Your task to perform on an android device: uninstall "Google Docs" Image 0: 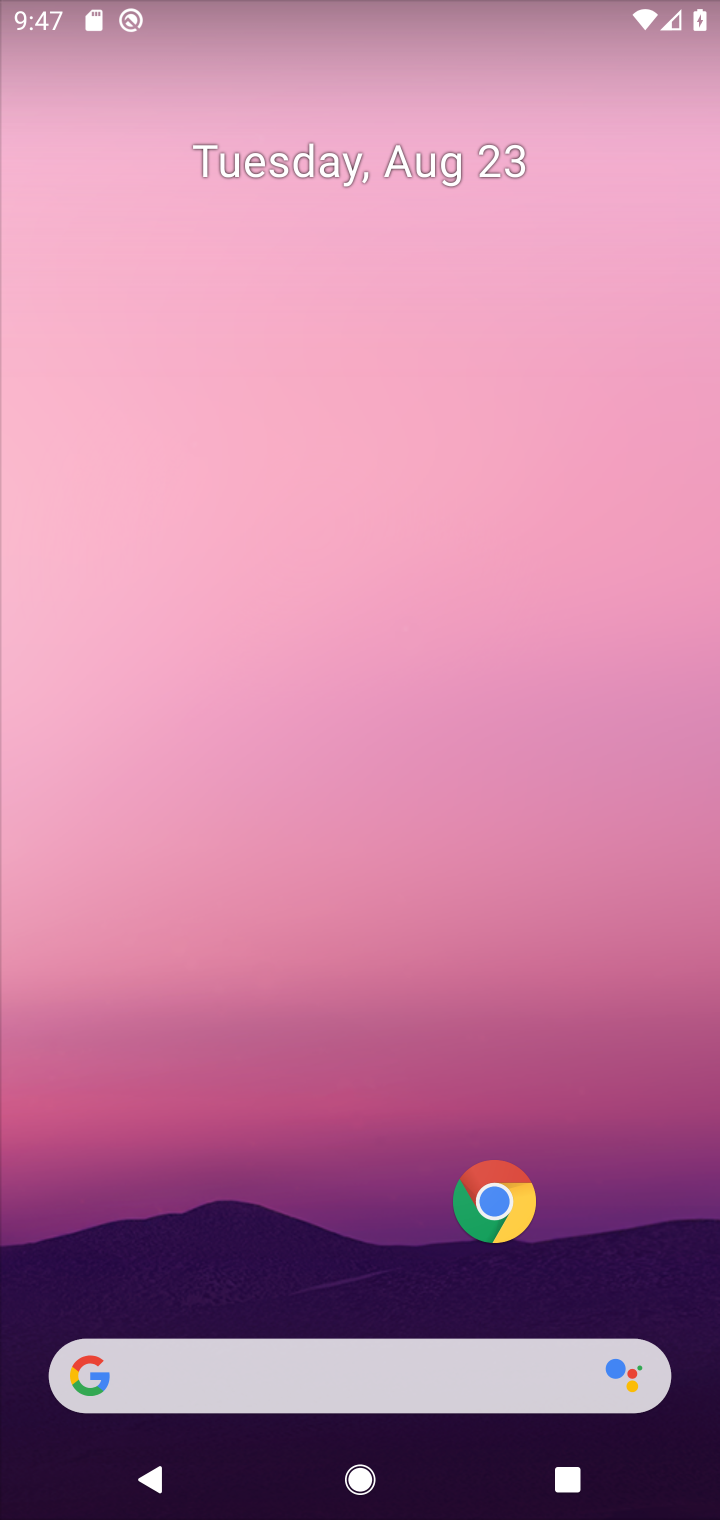
Step 0: drag from (407, 1187) to (407, 758)
Your task to perform on an android device: uninstall "Google Docs" Image 1: 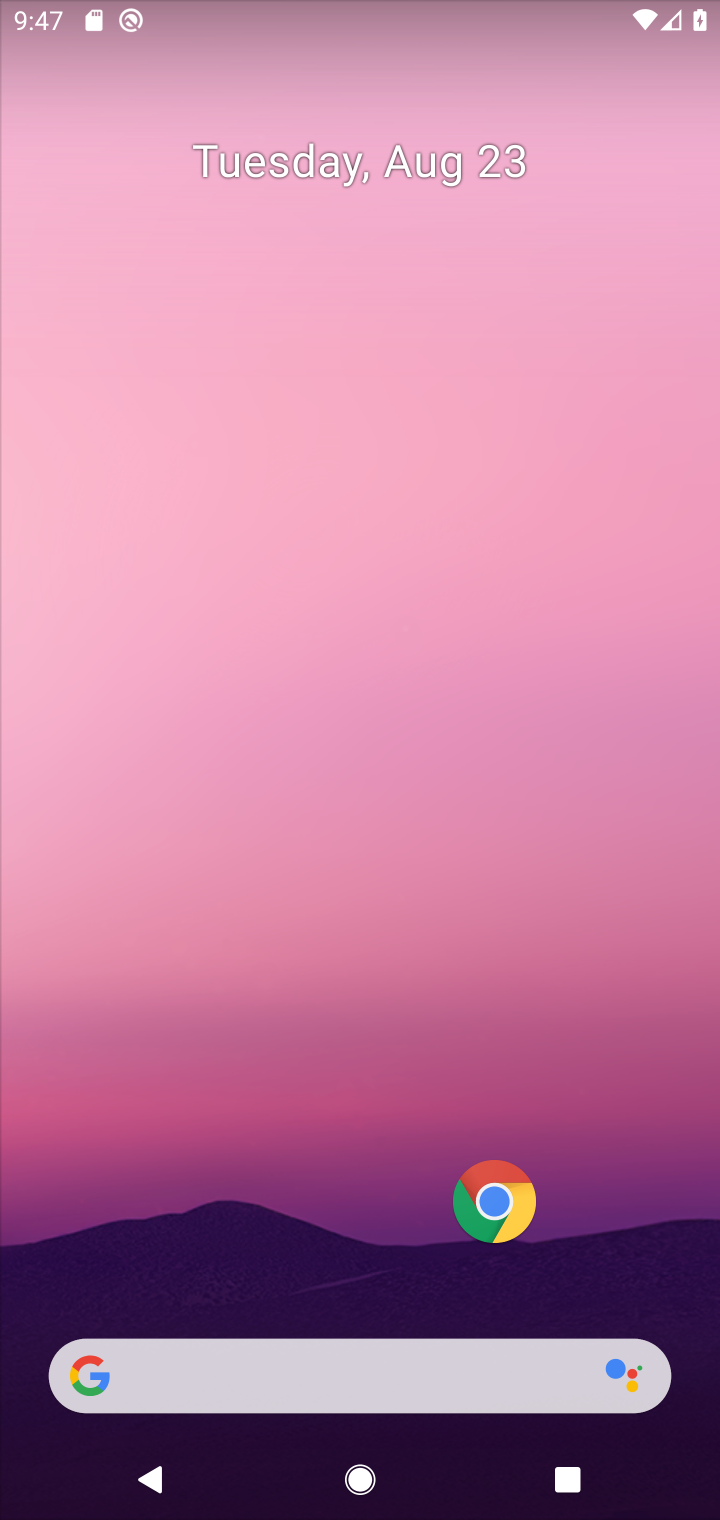
Step 1: drag from (252, 1304) to (270, 665)
Your task to perform on an android device: uninstall "Google Docs" Image 2: 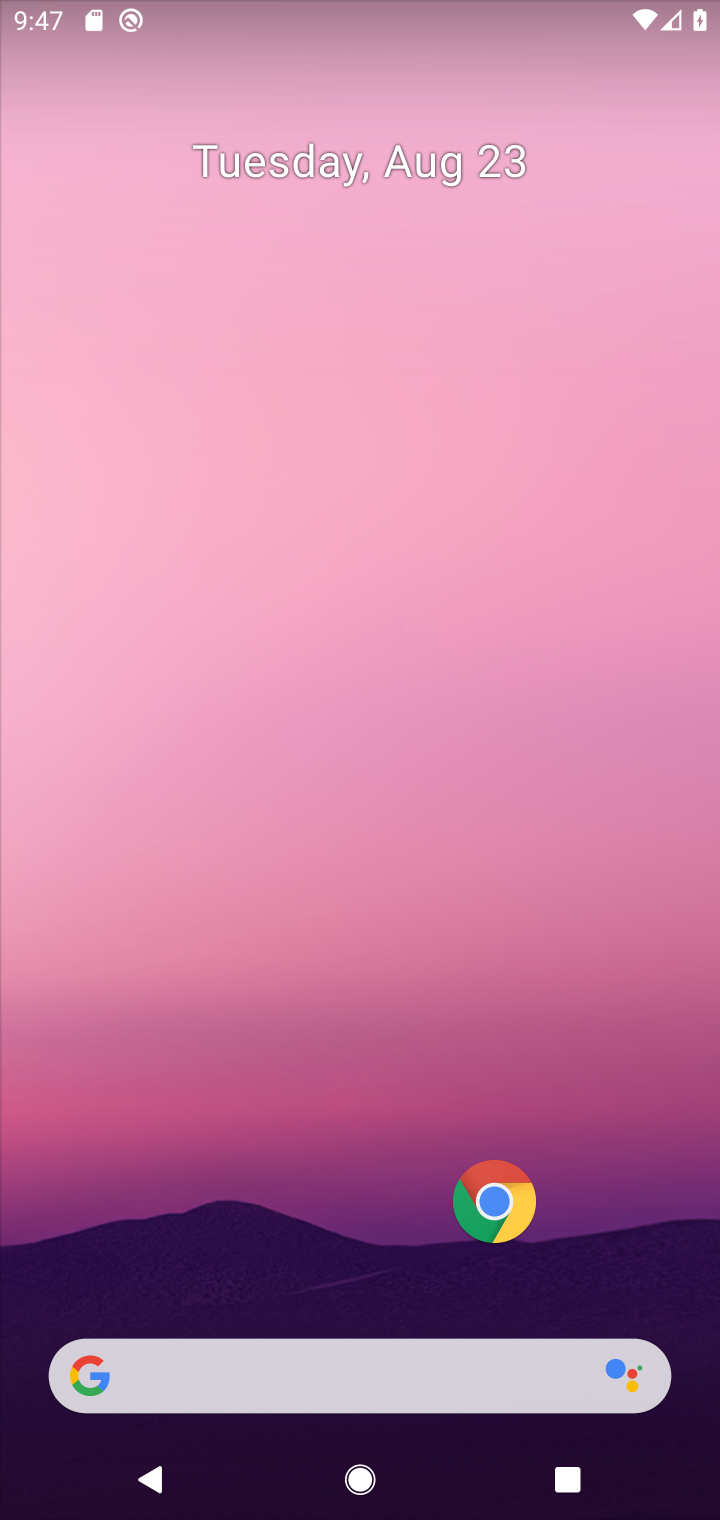
Step 2: drag from (301, 1267) to (332, 636)
Your task to perform on an android device: uninstall "Google Docs" Image 3: 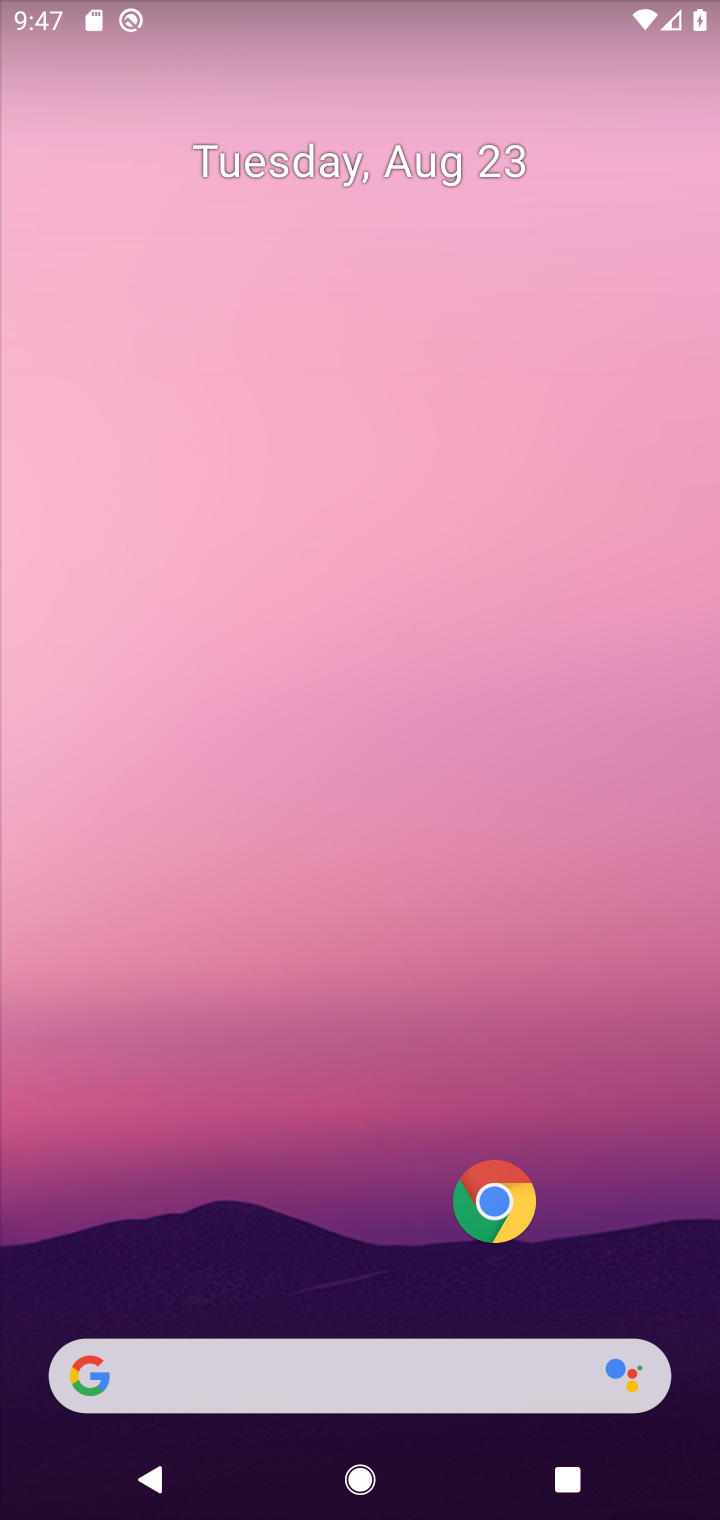
Step 3: drag from (355, 1275) to (349, 66)
Your task to perform on an android device: uninstall "Google Docs" Image 4: 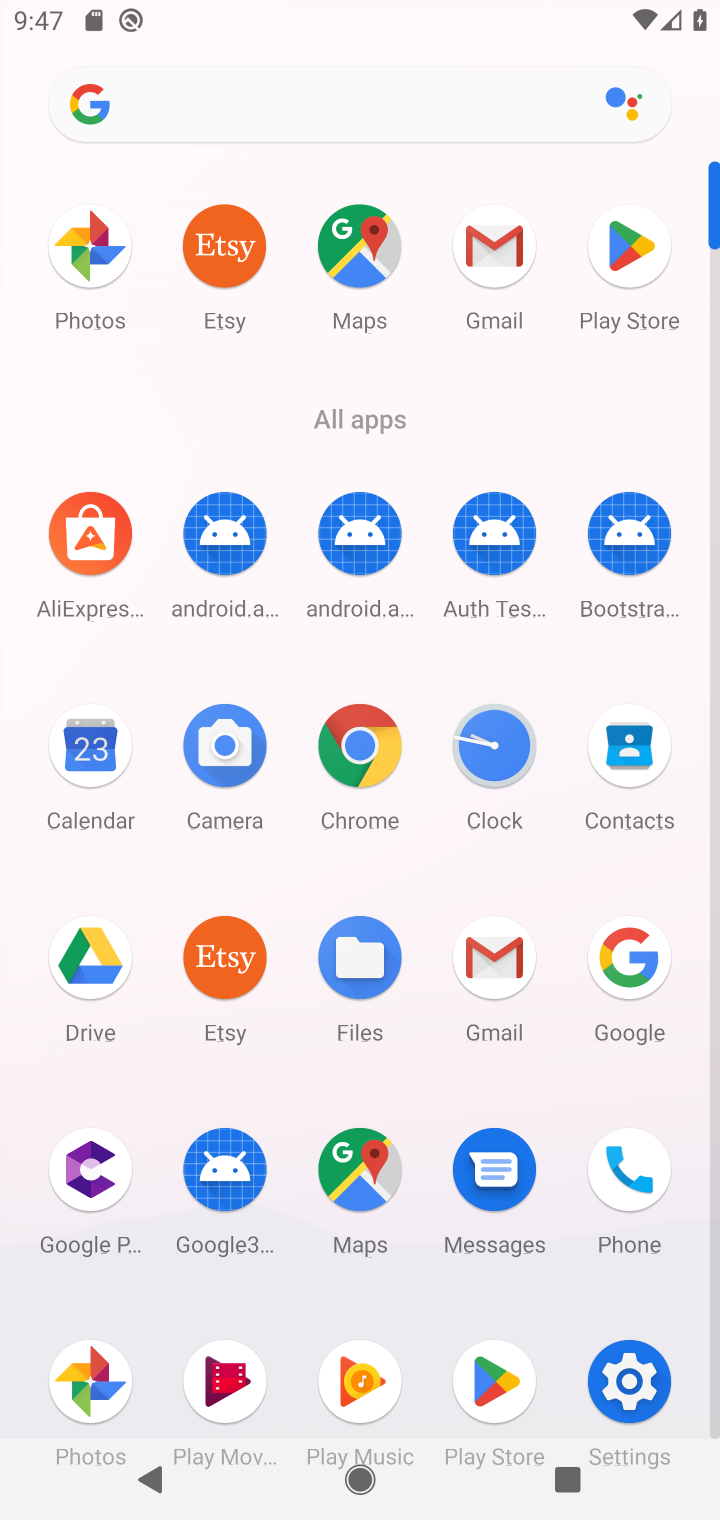
Step 4: click (625, 236)
Your task to perform on an android device: uninstall "Google Docs" Image 5: 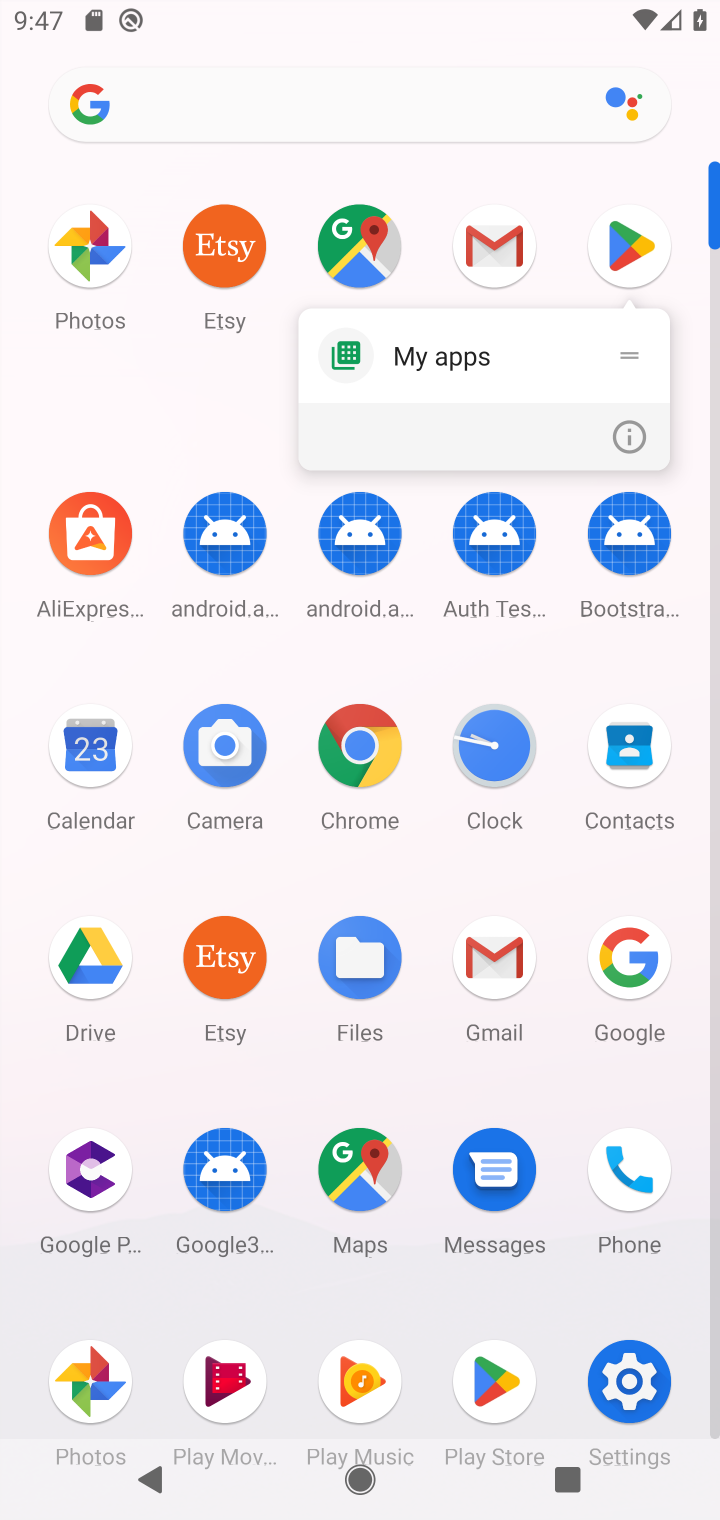
Step 5: click (625, 236)
Your task to perform on an android device: uninstall "Google Docs" Image 6: 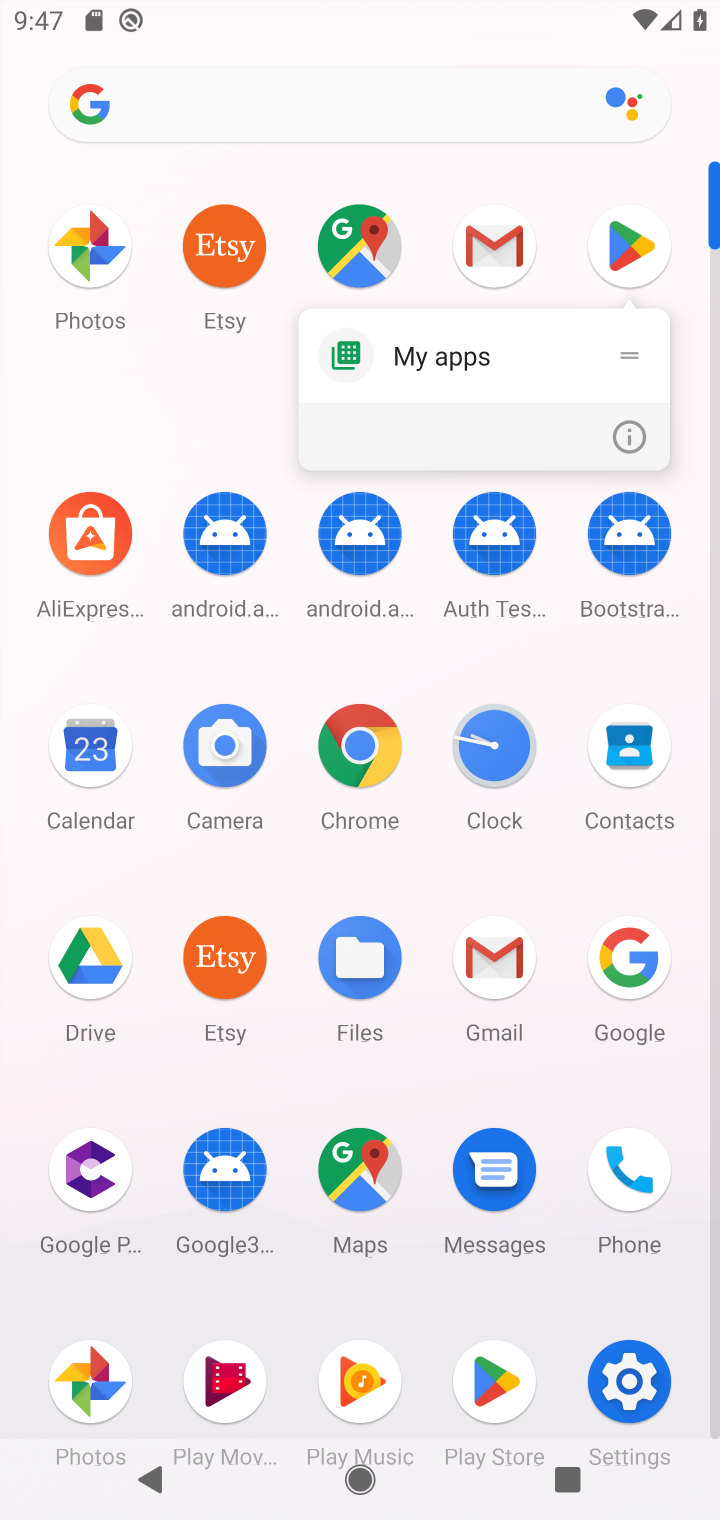
Step 6: click (501, 1393)
Your task to perform on an android device: uninstall "Google Docs" Image 7: 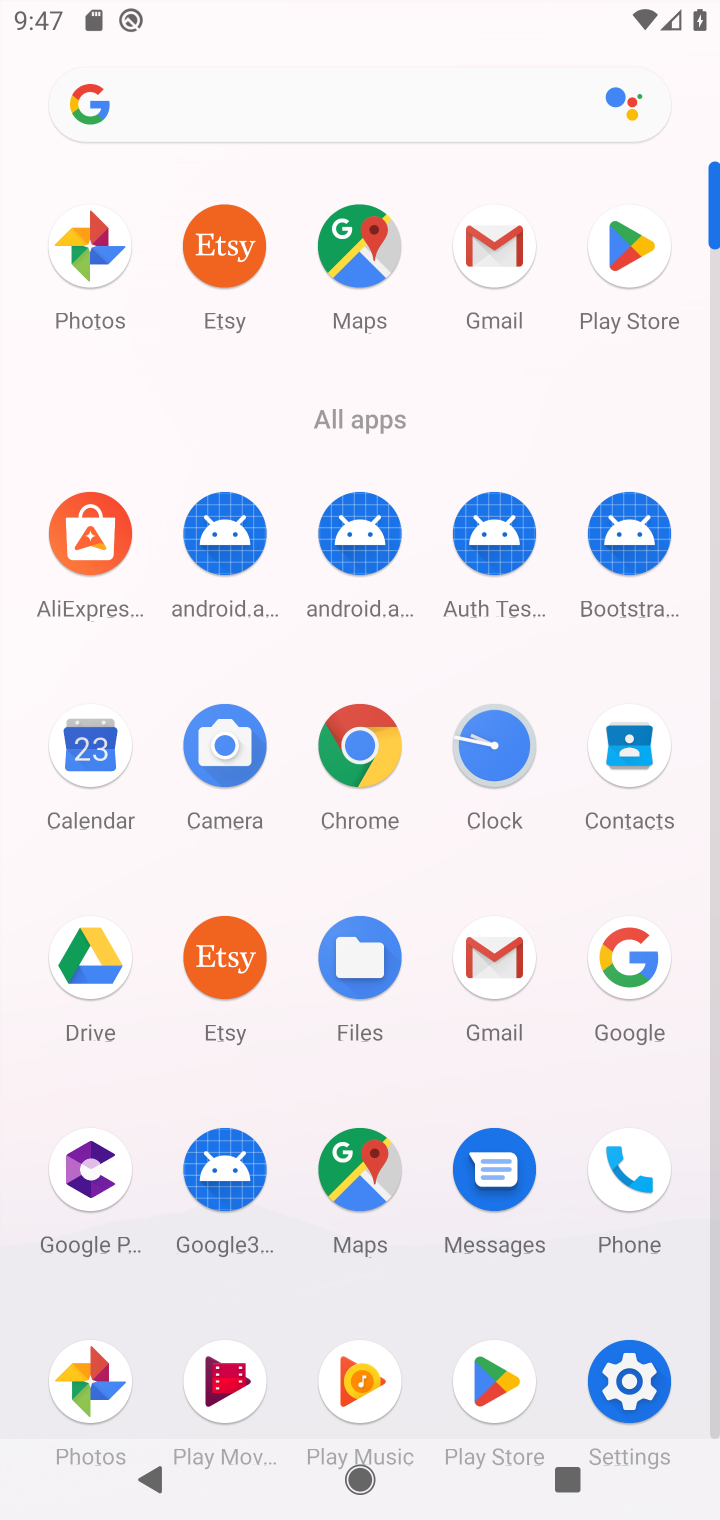
Step 7: click (501, 1393)
Your task to perform on an android device: uninstall "Google Docs" Image 8: 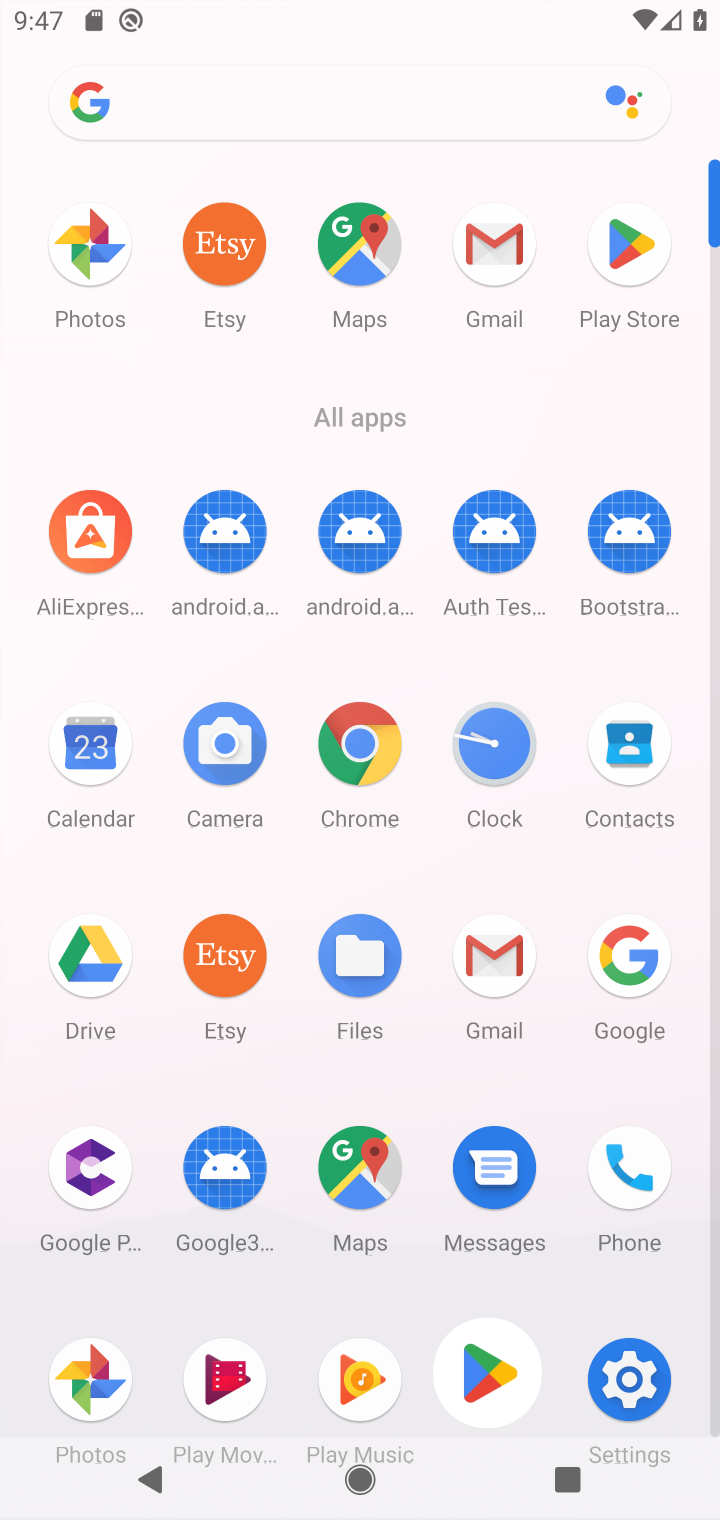
Step 8: click (489, 1381)
Your task to perform on an android device: uninstall "Google Docs" Image 9: 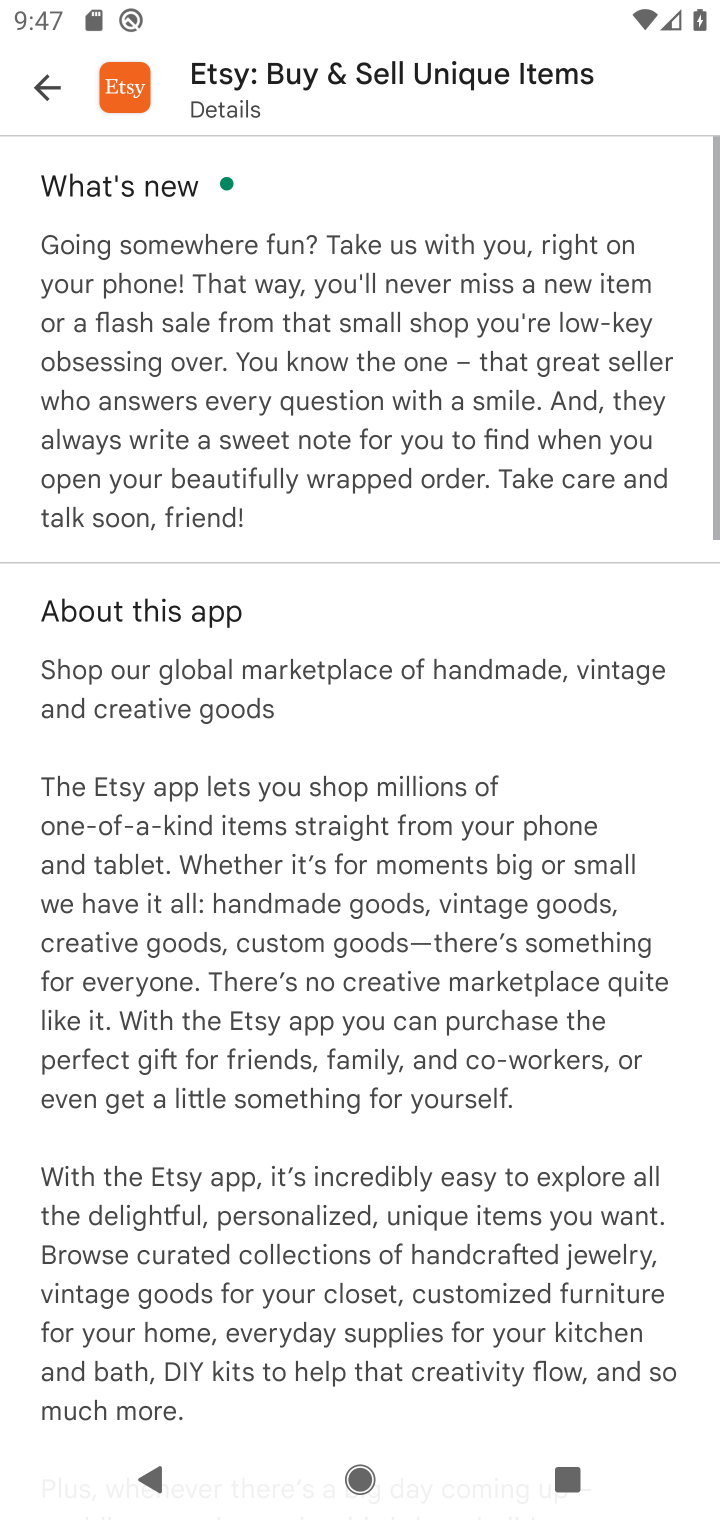
Step 9: click (33, 87)
Your task to perform on an android device: uninstall "Google Docs" Image 10: 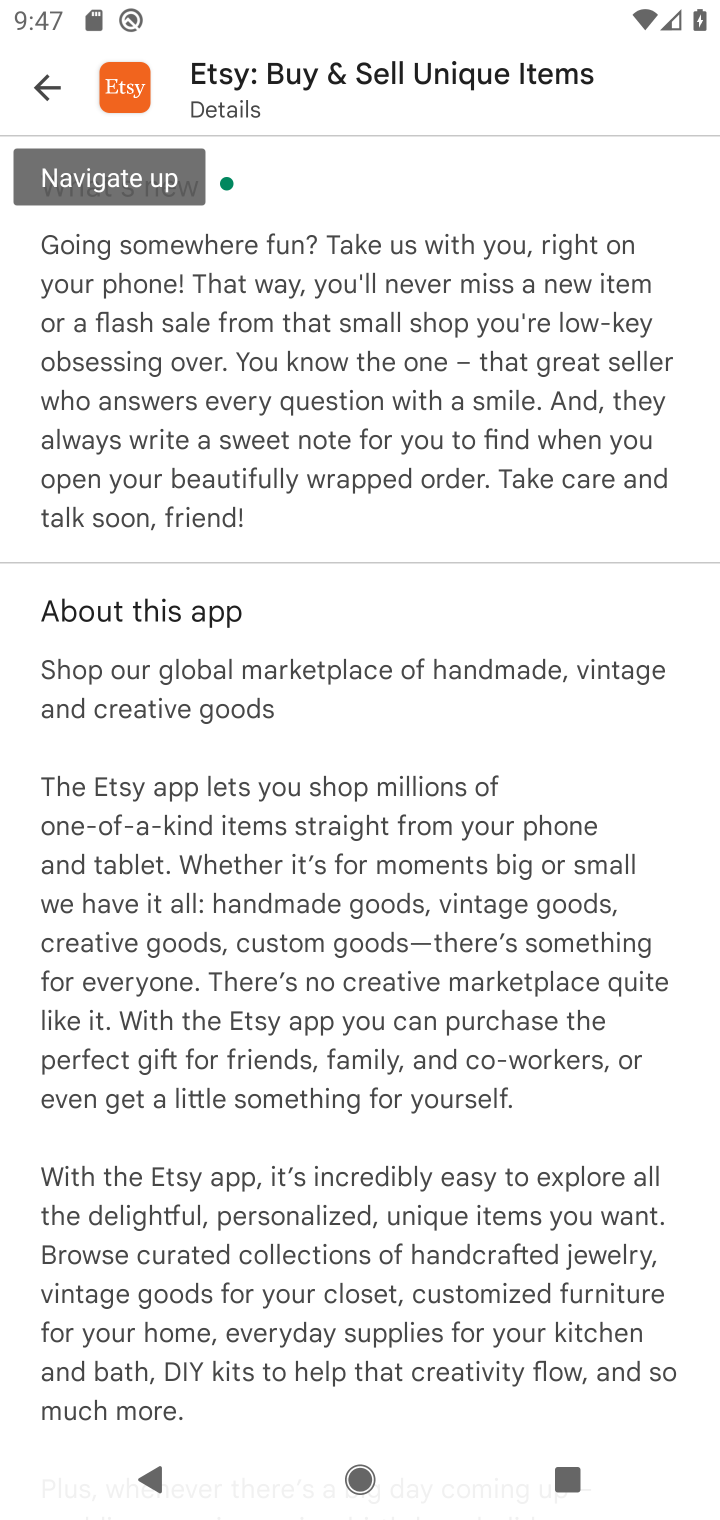
Step 10: click (52, 91)
Your task to perform on an android device: uninstall "Google Docs" Image 11: 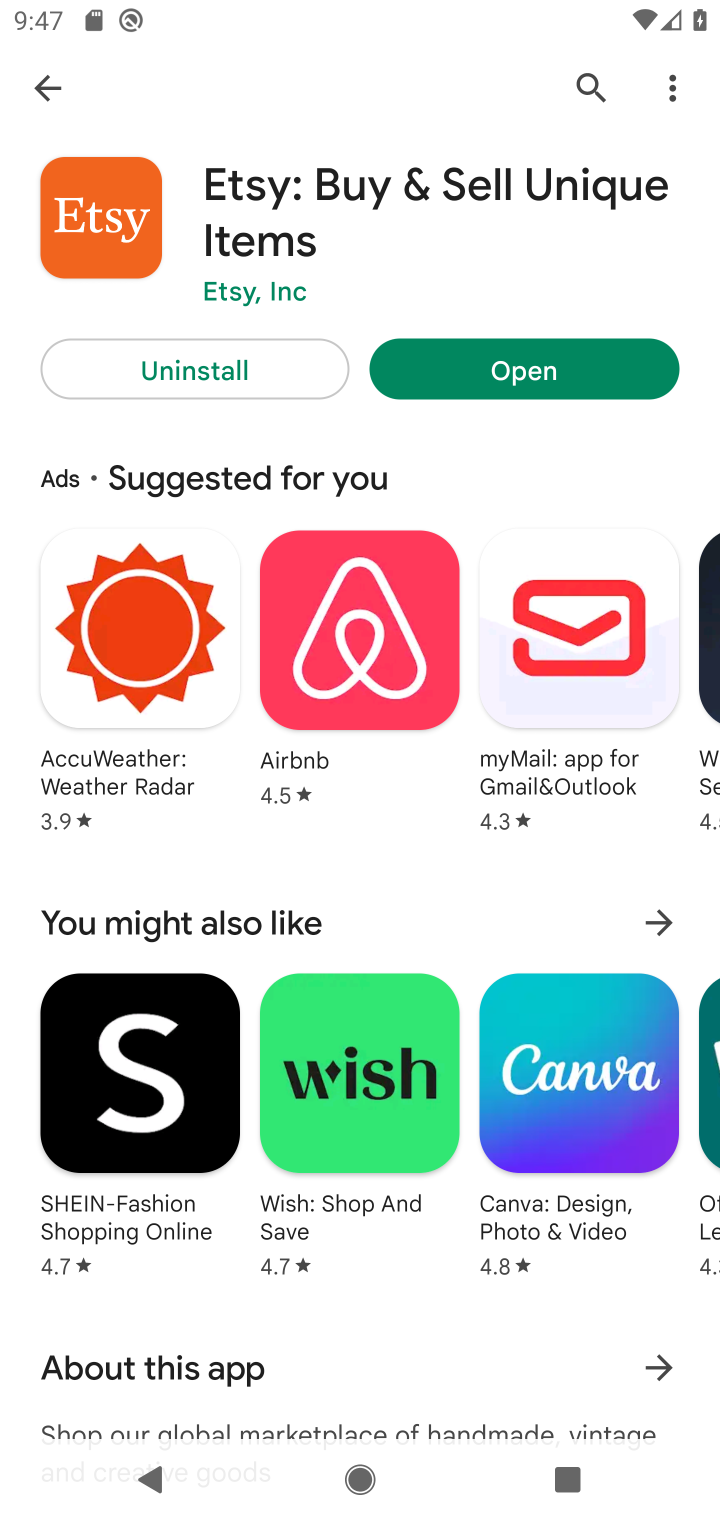
Step 11: click (52, 91)
Your task to perform on an android device: uninstall "Google Docs" Image 12: 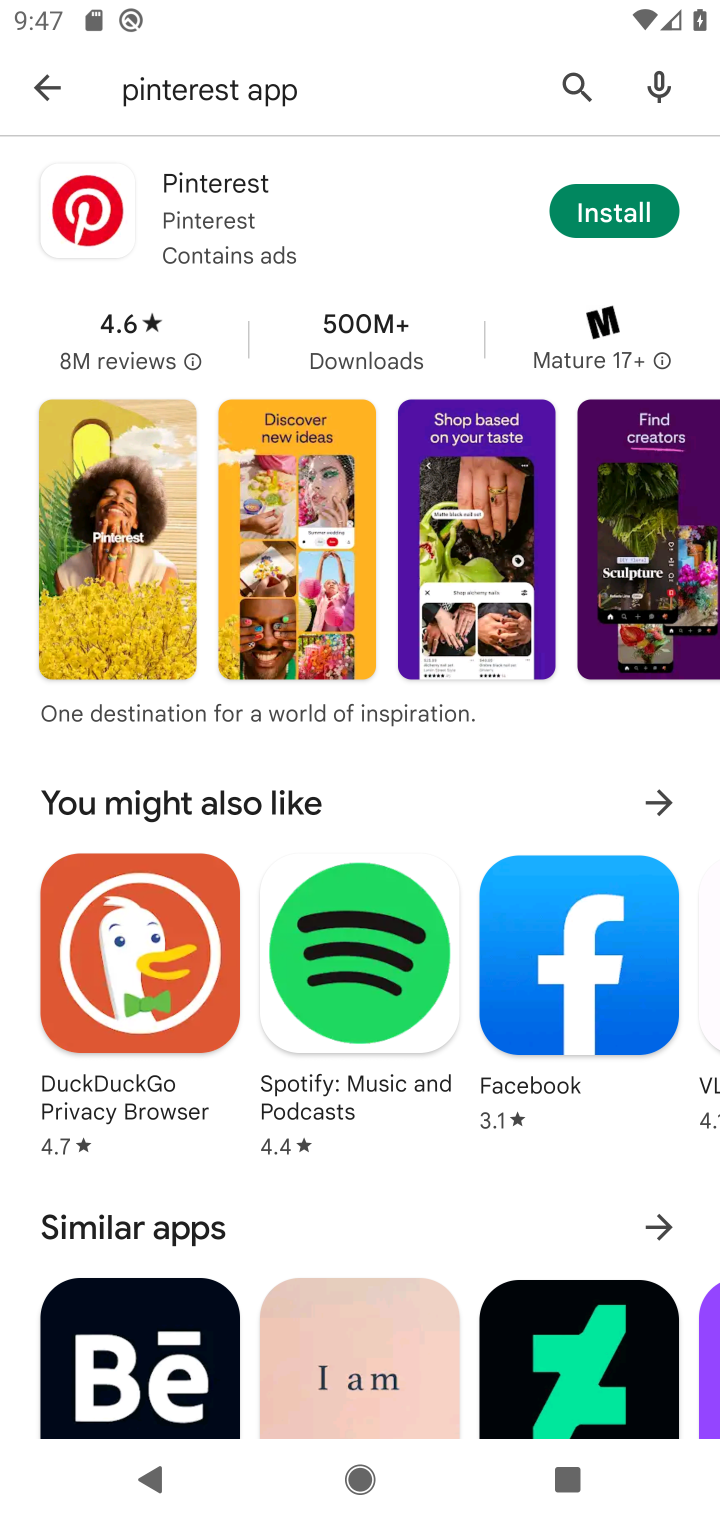
Step 12: click (558, 89)
Your task to perform on an android device: uninstall "Google Docs" Image 13: 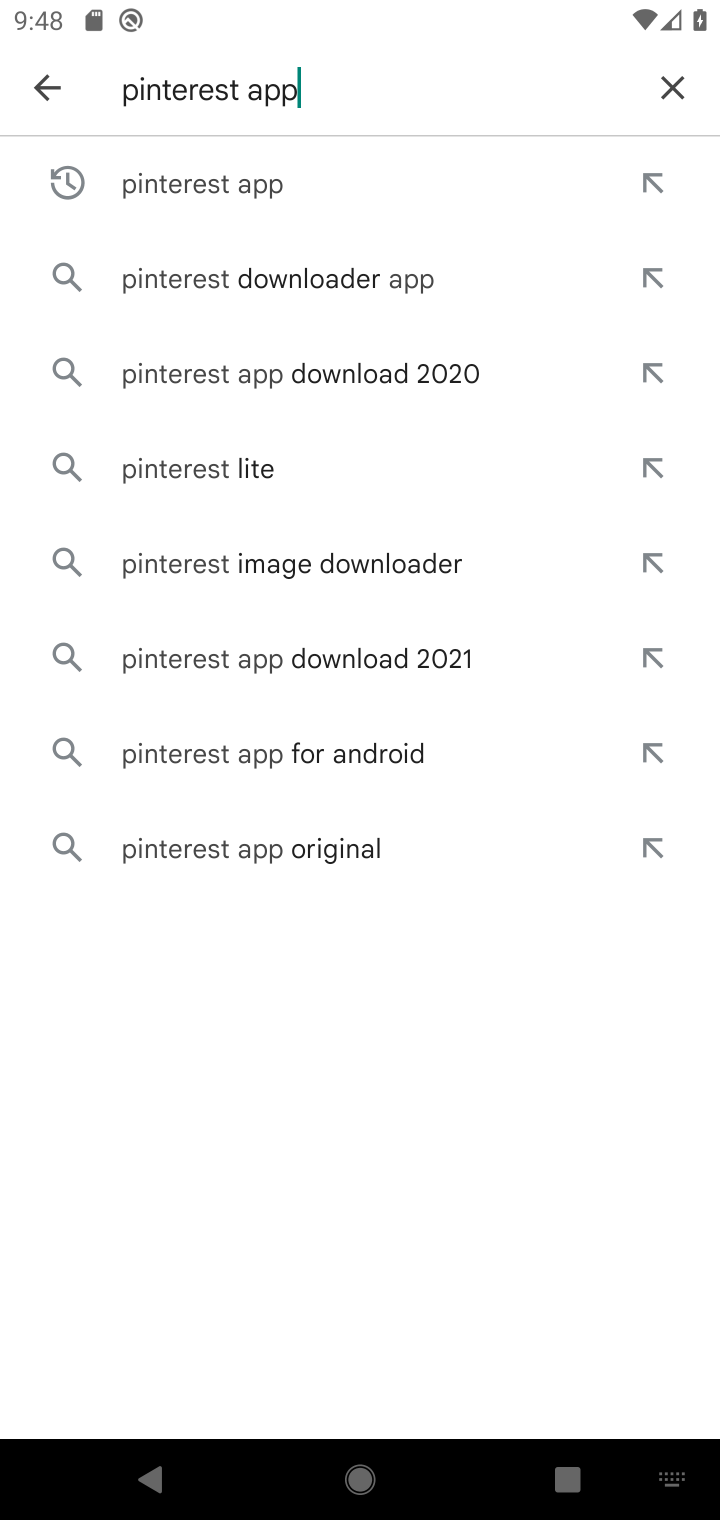
Step 13: click (685, 60)
Your task to perform on an android device: uninstall "Google Docs" Image 14: 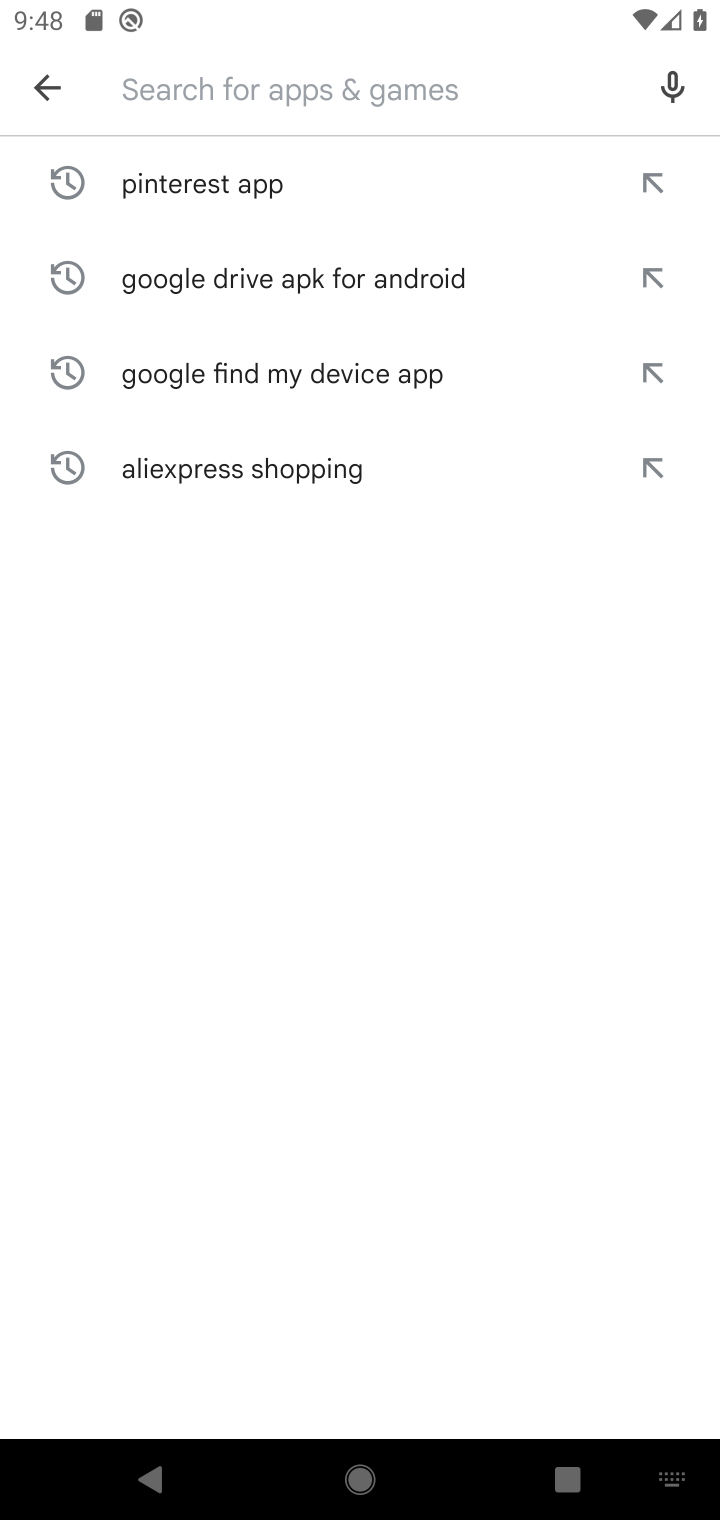
Step 14: click (356, 80)
Your task to perform on an android device: uninstall "Google Docs" Image 15: 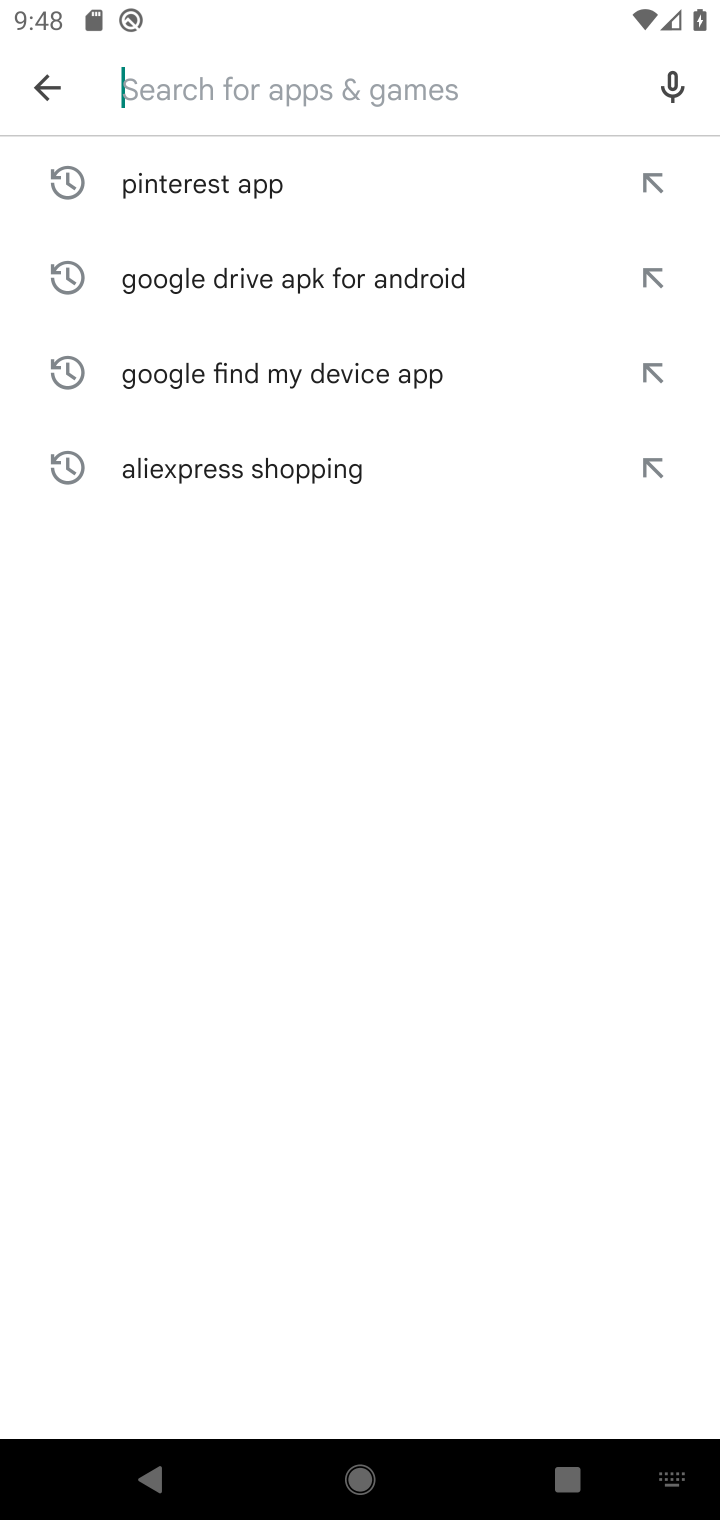
Step 15: type "Google Docs "
Your task to perform on an android device: uninstall "Google Docs" Image 16: 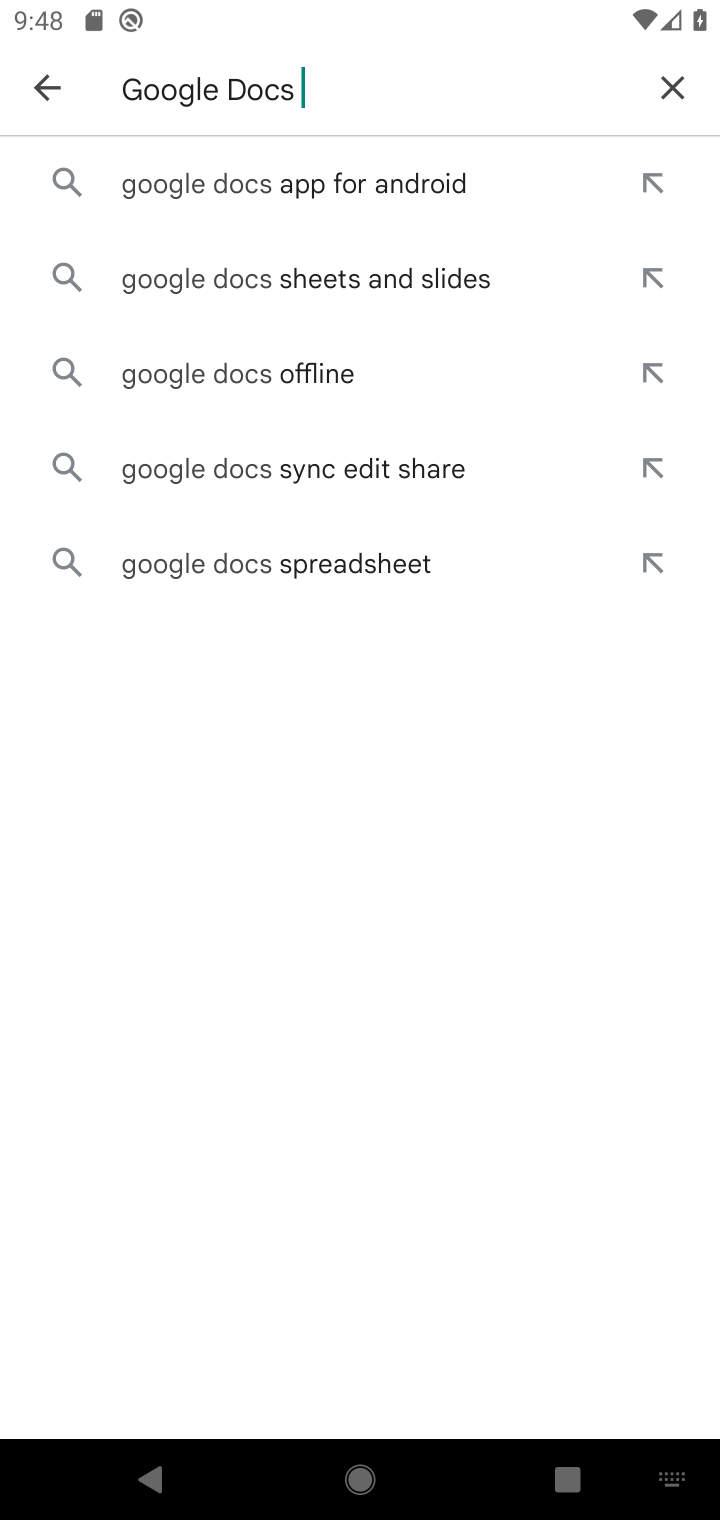
Step 16: click (344, 186)
Your task to perform on an android device: uninstall "Google Docs" Image 17: 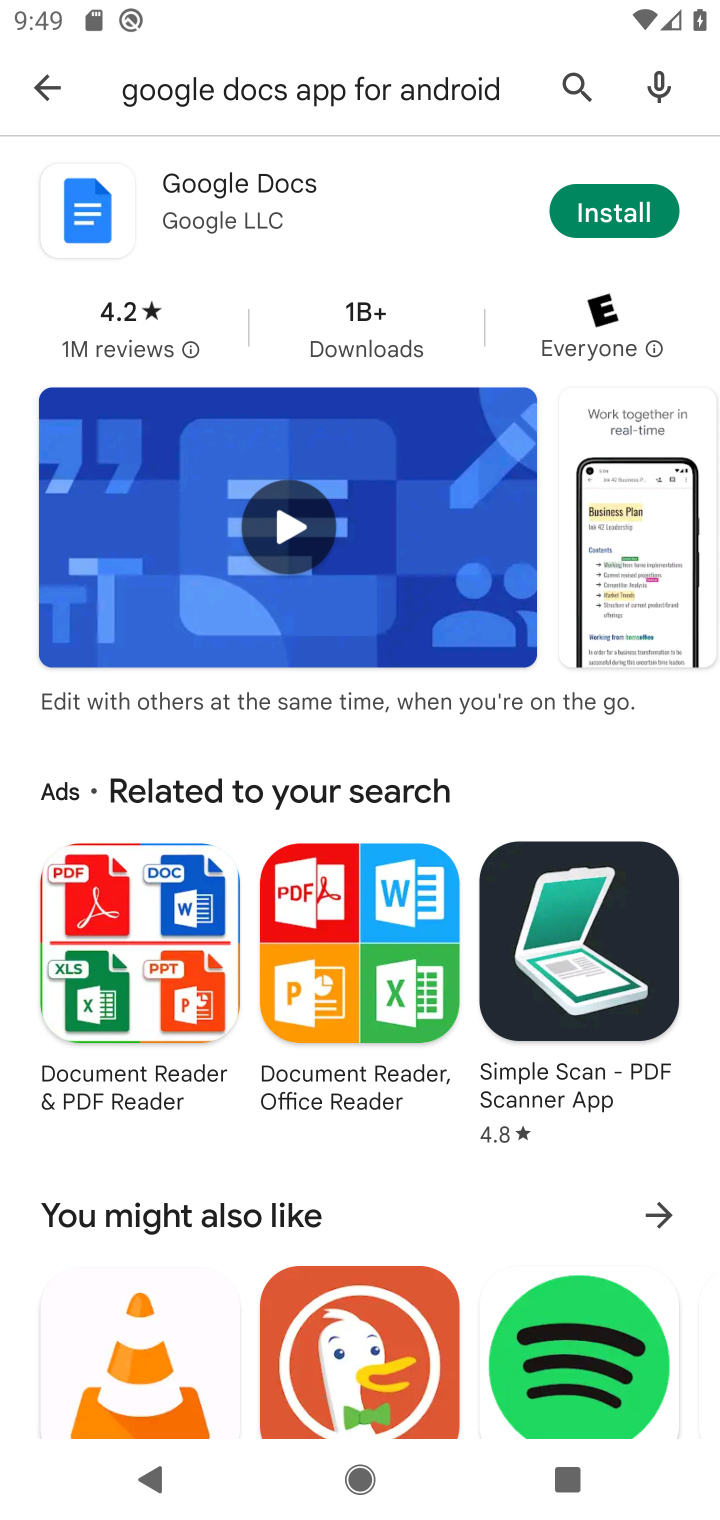
Step 17: task complete